Your task to perform on an android device: Open the stopwatch Image 0: 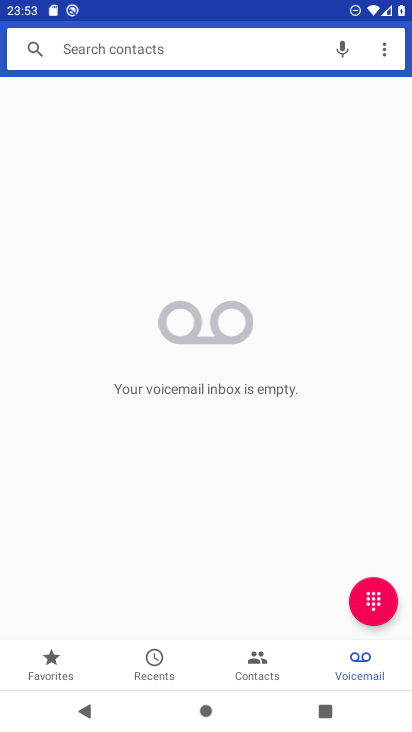
Step 0: press home button
Your task to perform on an android device: Open the stopwatch Image 1: 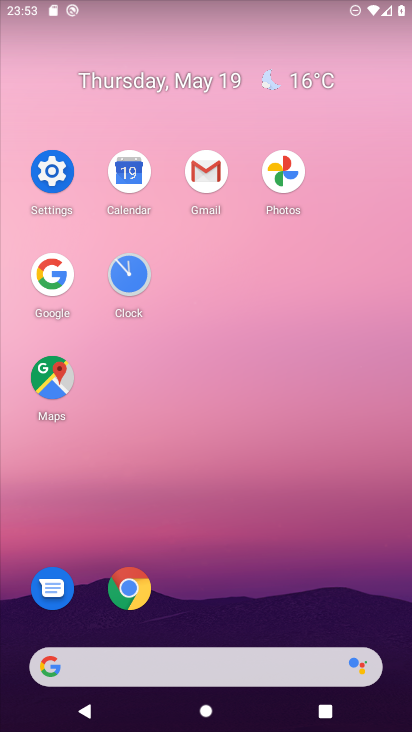
Step 1: click (135, 270)
Your task to perform on an android device: Open the stopwatch Image 2: 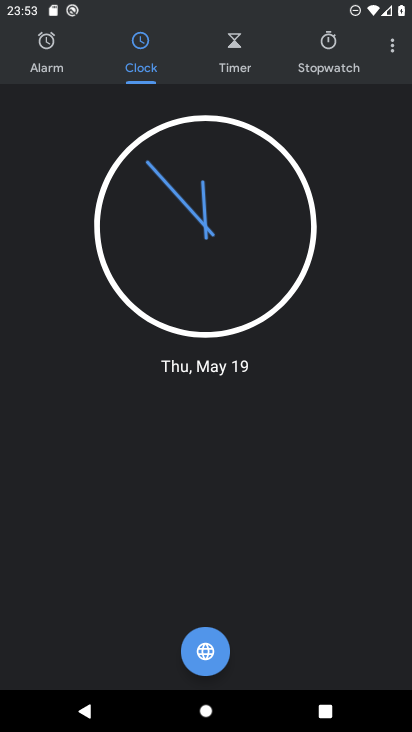
Step 2: click (330, 36)
Your task to perform on an android device: Open the stopwatch Image 3: 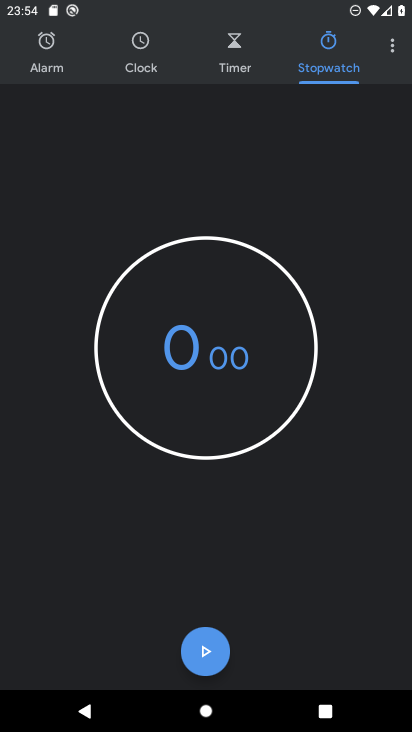
Step 3: task complete